Your task to perform on an android device: find which apps use the phone's location Image 0: 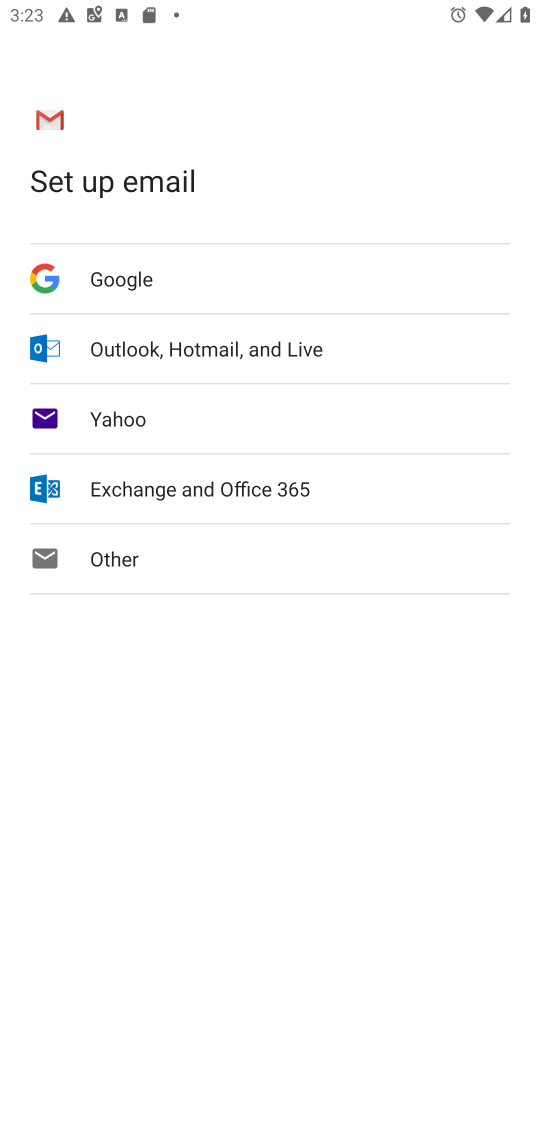
Step 0: press home button
Your task to perform on an android device: find which apps use the phone's location Image 1: 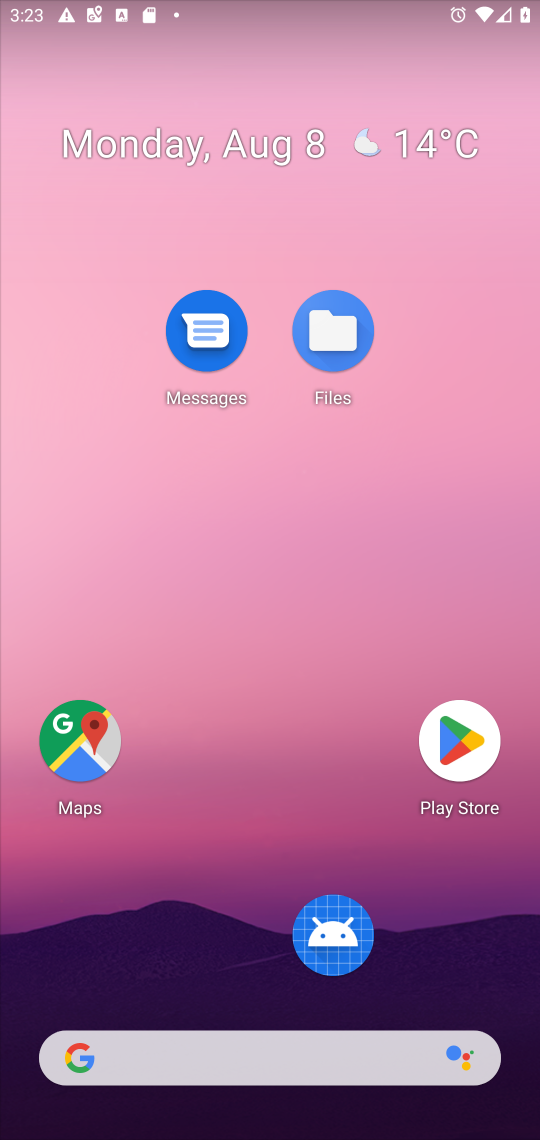
Step 1: drag from (246, 1051) to (338, 163)
Your task to perform on an android device: find which apps use the phone's location Image 2: 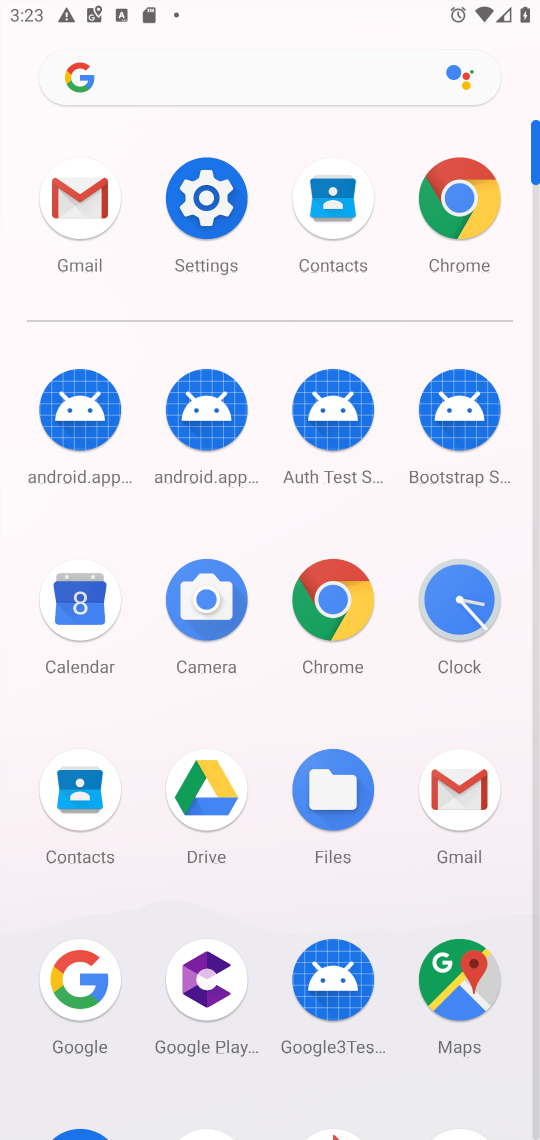
Step 2: click (227, 215)
Your task to perform on an android device: find which apps use the phone's location Image 3: 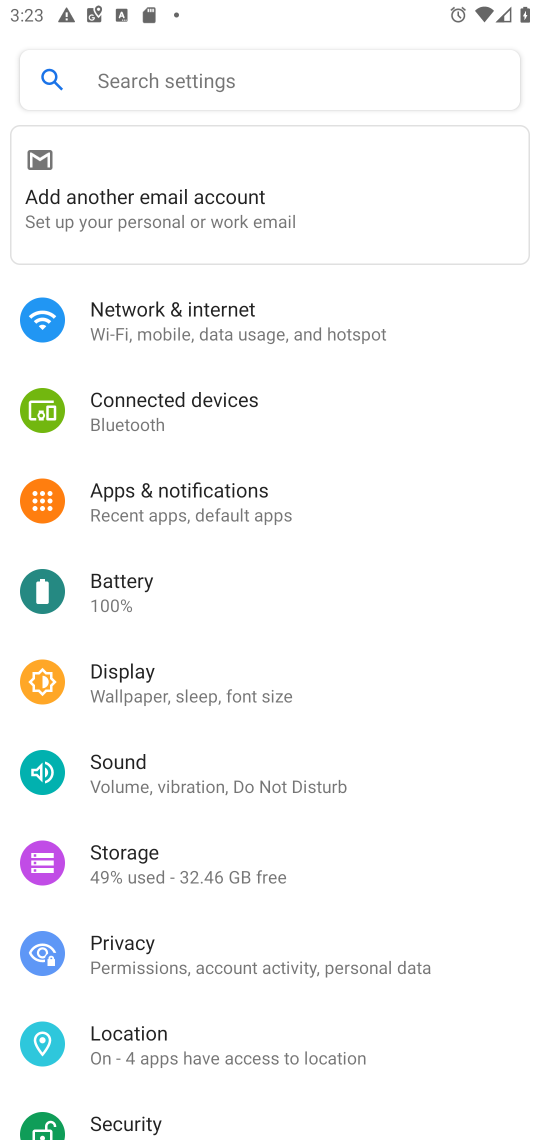
Step 3: click (340, 1048)
Your task to perform on an android device: find which apps use the phone's location Image 4: 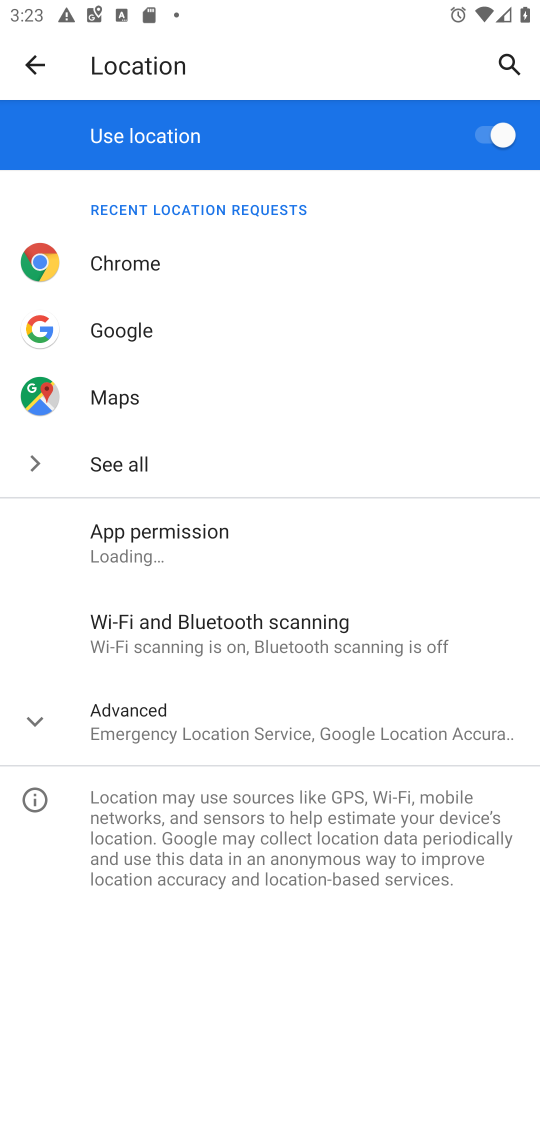
Step 4: click (170, 531)
Your task to perform on an android device: find which apps use the phone's location Image 5: 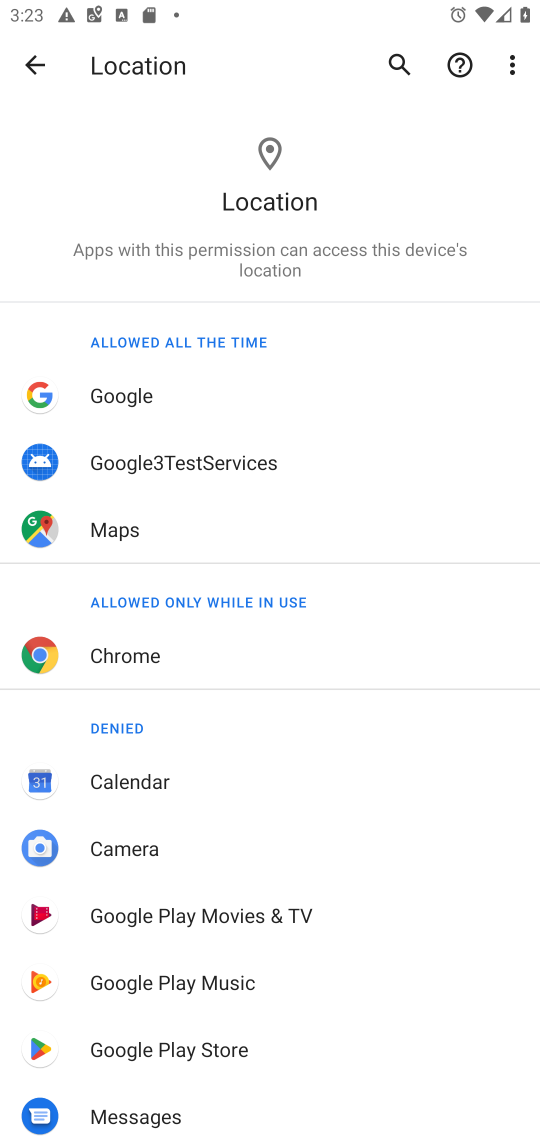
Step 5: task complete